Your task to perform on an android device: Turn off the flashlight Image 0: 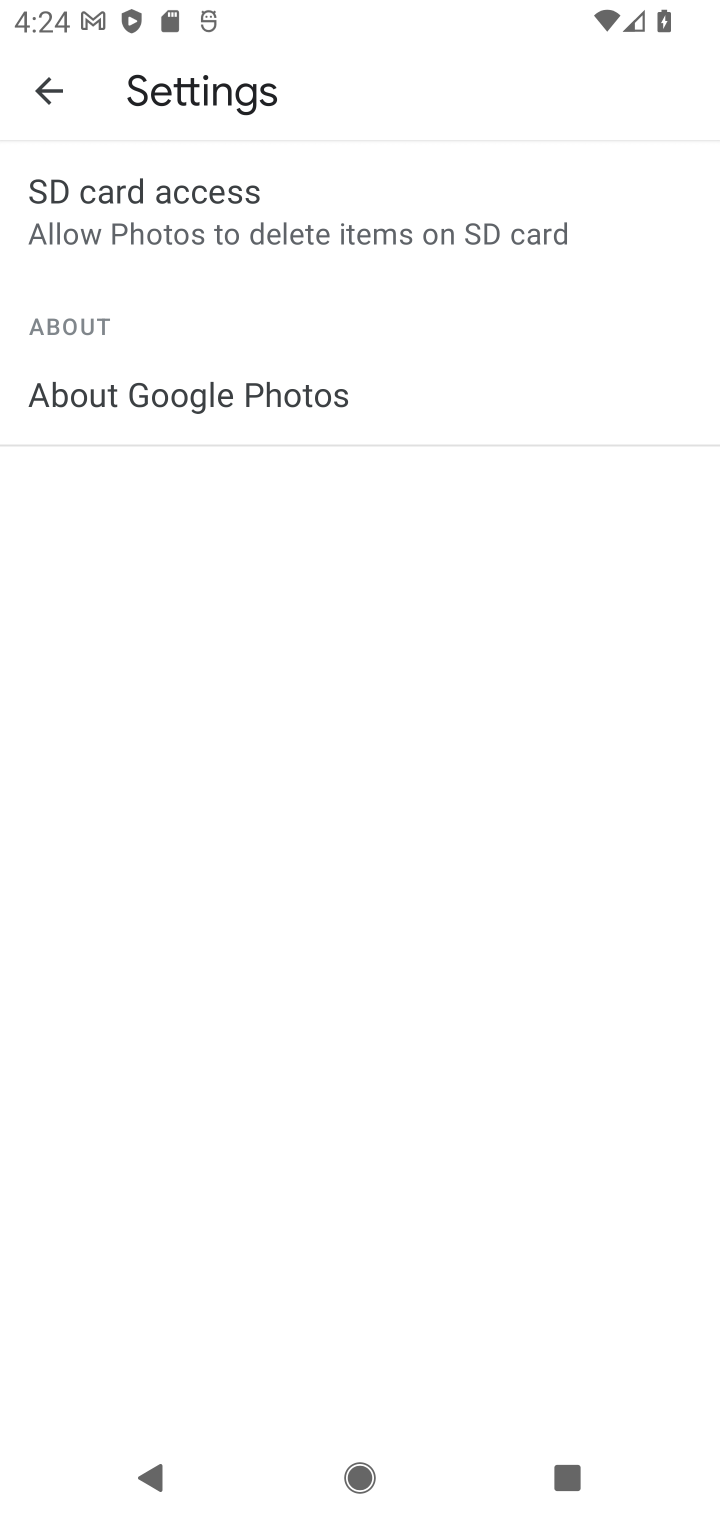
Step 0: press home button
Your task to perform on an android device: Turn off the flashlight Image 1: 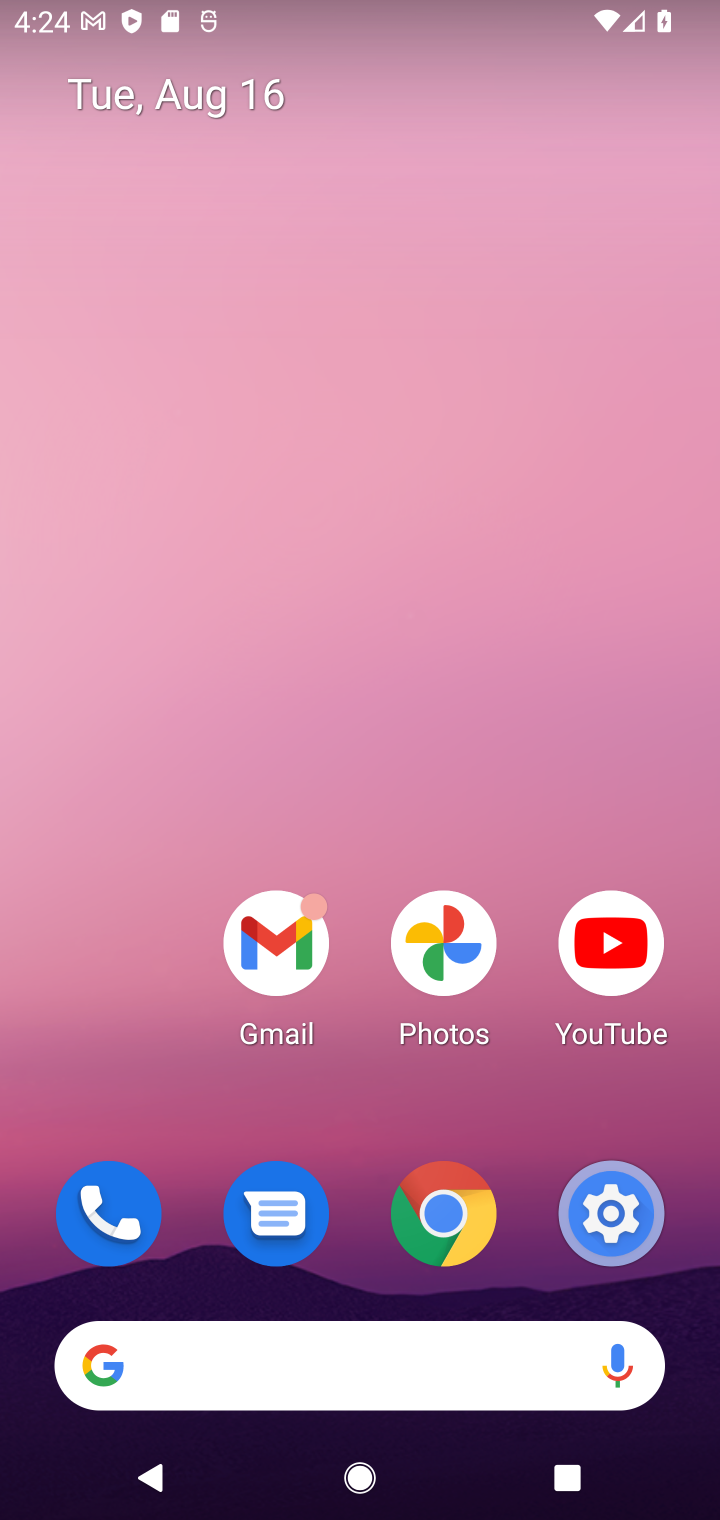
Step 1: drag from (366, 925) to (235, 22)
Your task to perform on an android device: Turn off the flashlight Image 2: 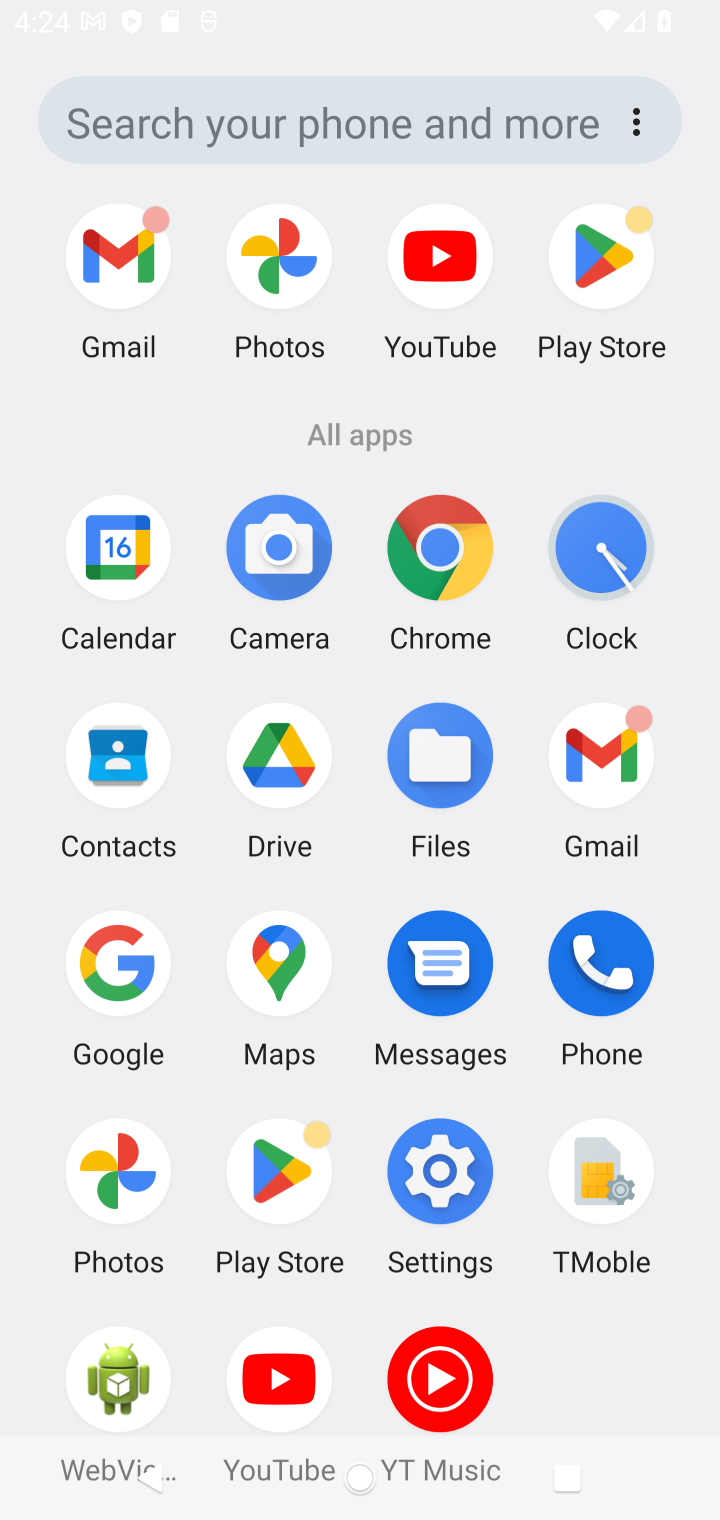
Step 2: click (442, 1169)
Your task to perform on an android device: Turn off the flashlight Image 3: 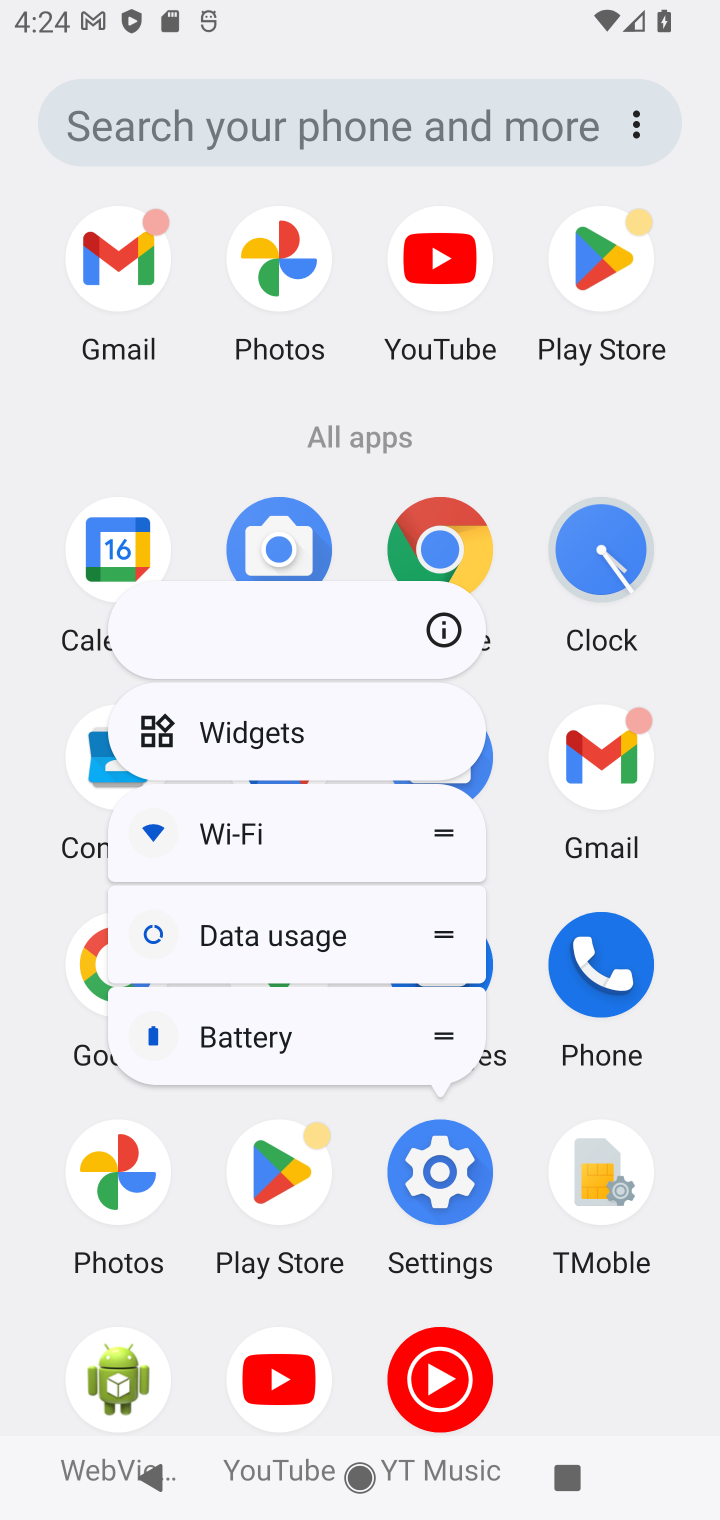
Step 3: click (422, 1153)
Your task to perform on an android device: Turn off the flashlight Image 4: 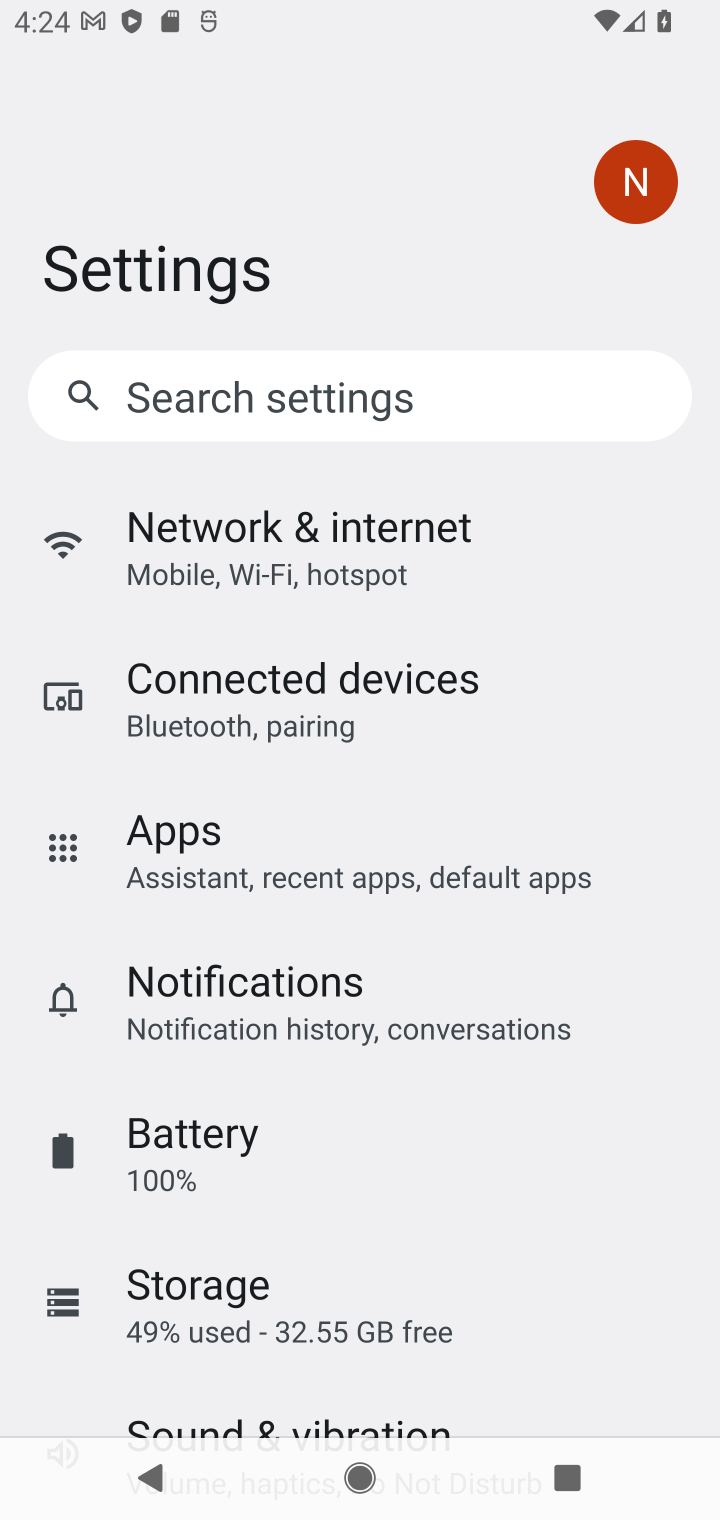
Step 4: drag from (454, 1221) to (483, 343)
Your task to perform on an android device: Turn off the flashlight Image 5: 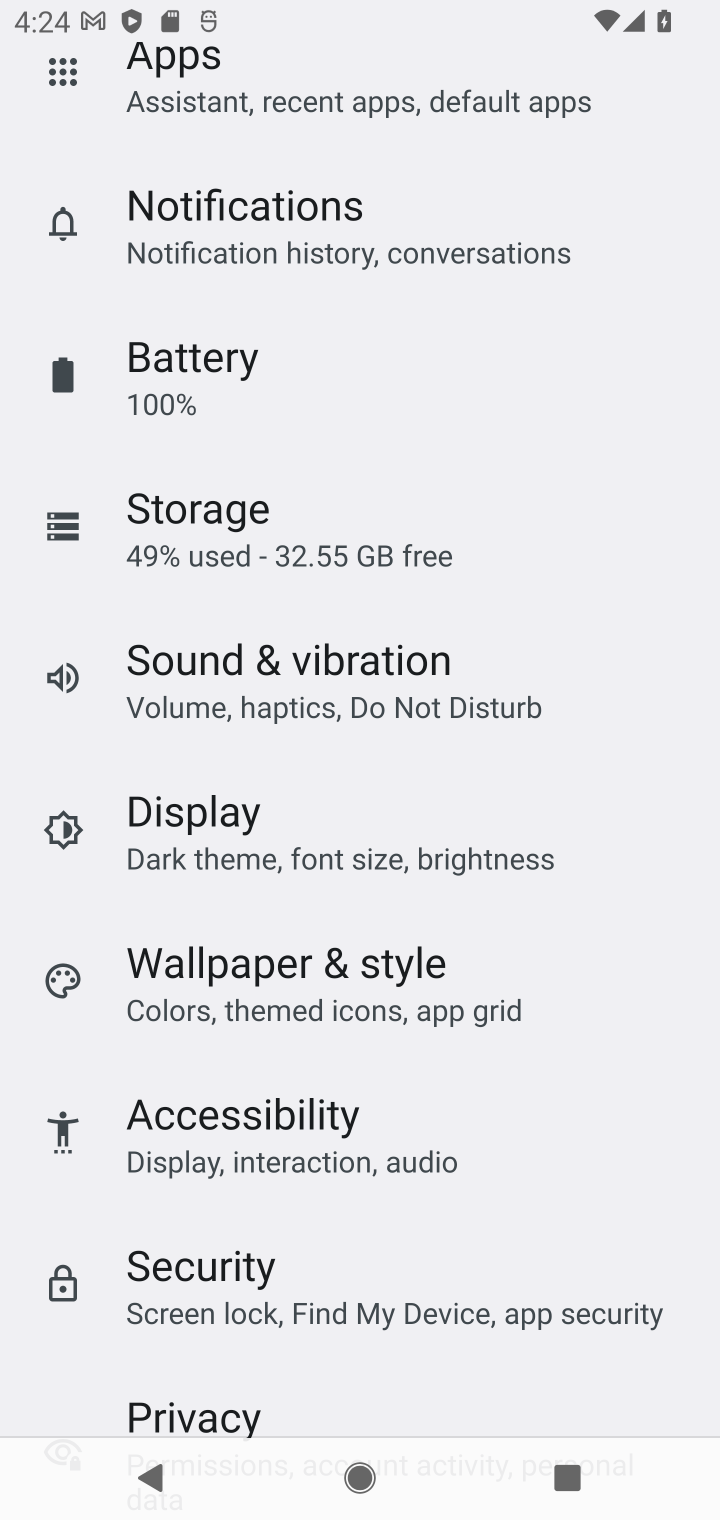
Step 5: click (179, 857)
Your task to perform on an android device: Turn off the flashlight Image 6: 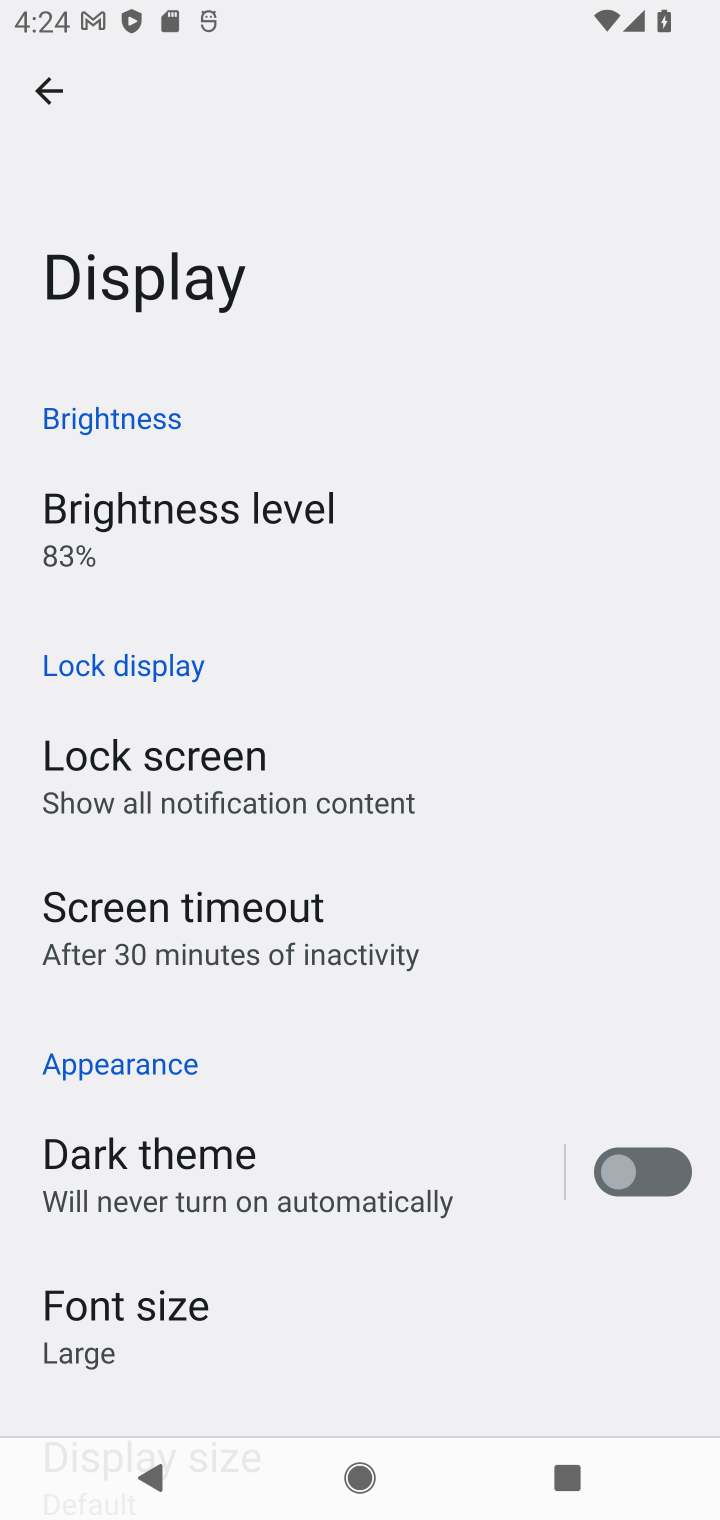
Step 6: task complete